Your task to perform on an android device: toggle airplane mode Image 0: 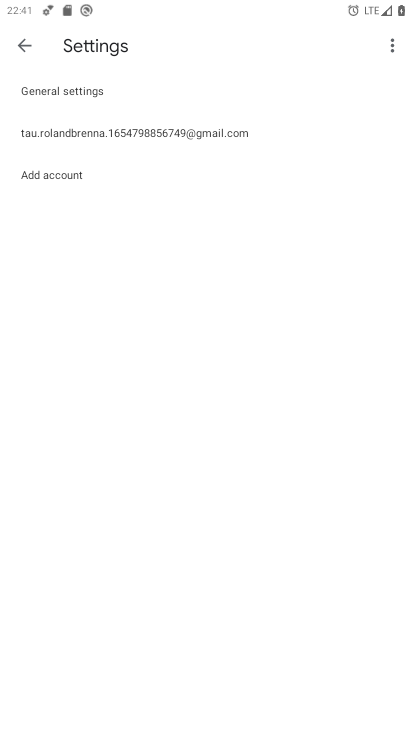
Step 0: press home button
Your task to perform on an android device: toggle airplane mode Image 1: 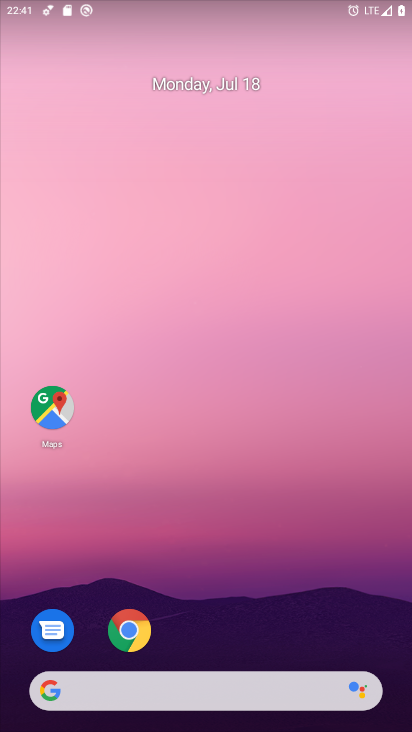
Step 1: drag from (252, 632) to (343, 57)
Your task to perform on an android device: toggle airplane mode Image 2: 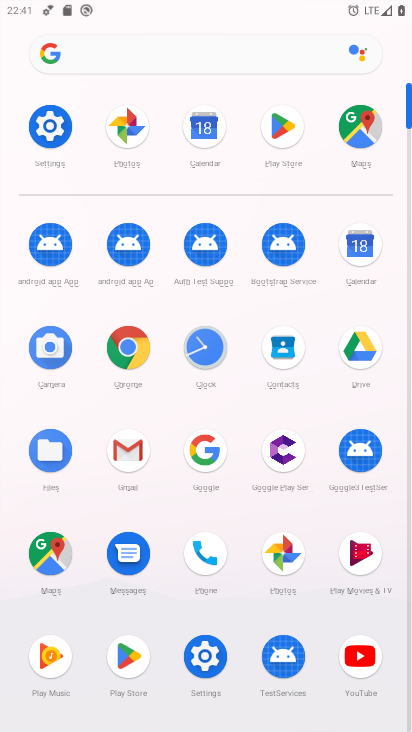
Step 2: click (61, 123)
Your task to perform on an android device: toggle airplane mode Image 3: 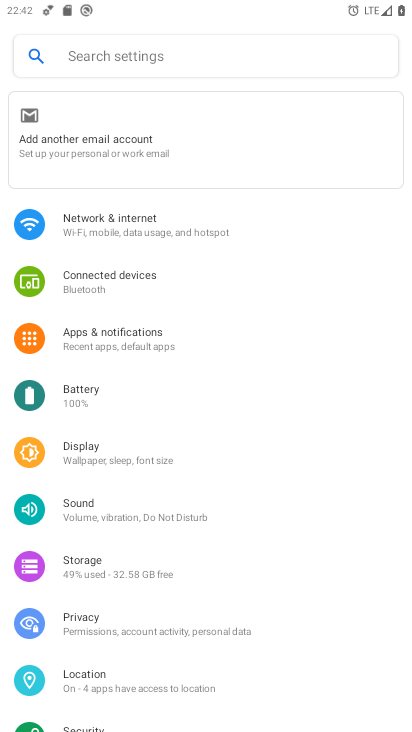
Step 3: click (120, 226)
Your task to perform on an android device: toggle airplane mode Image 4: 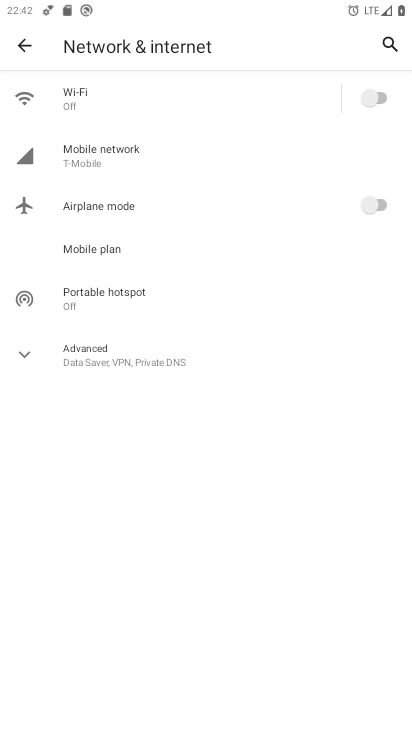
Step 4: click (381, 198)
Your task to perform on an android device: toggle airplane mode Image 5: 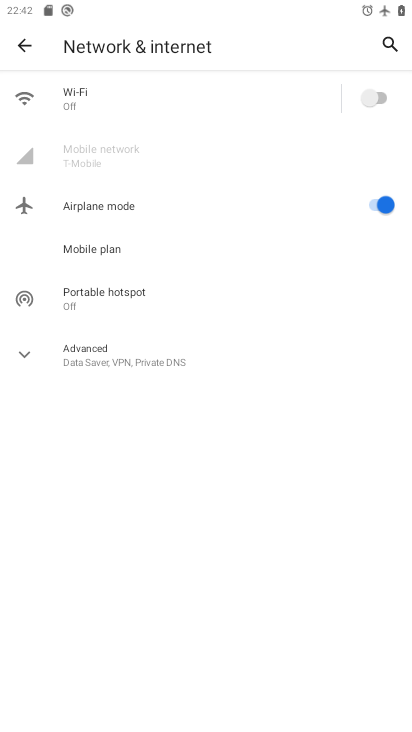
Step 5: task complete